Your task to perform on an android device: Open my contact list Image 0: 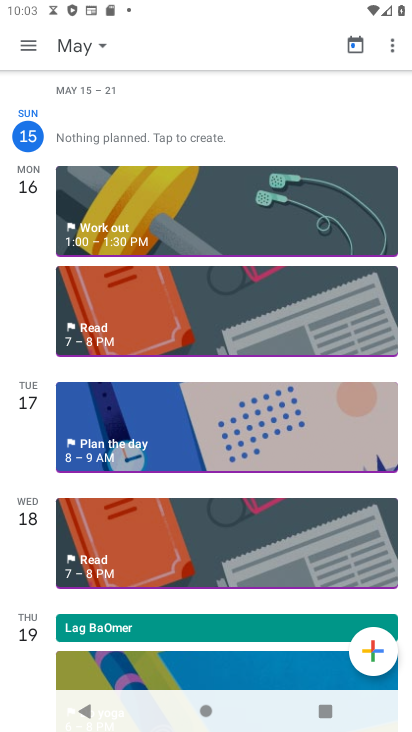
Step 0: press home button
Your task to perform on an android device: Open my contact list Image 1: 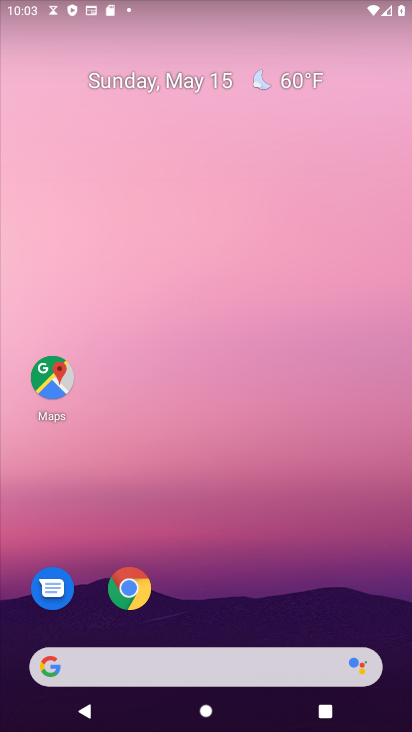
Step 1: drag from (247, 613) to (269, 125)
Your task to perform on an android device: Open my contact list Image 2: 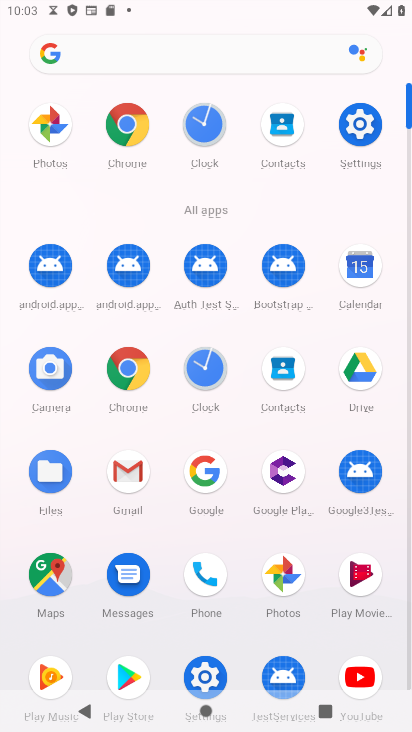
Step 2: click (286, 370)
Your task to perform on an android device: Open my contact list Image 3: 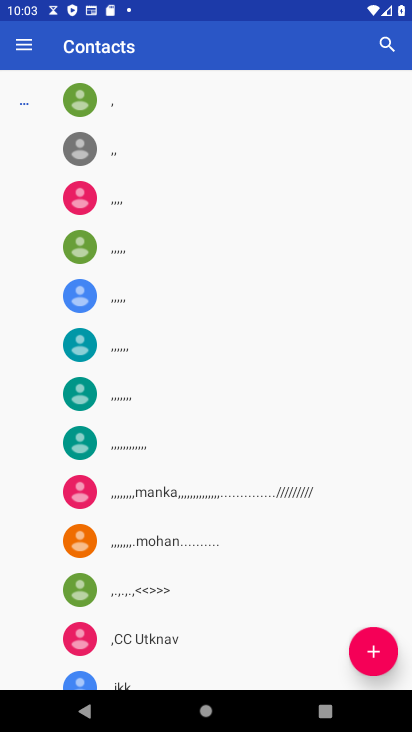
Step 3: task complete